Your task to perform on an android device: turn off location history Image 0: 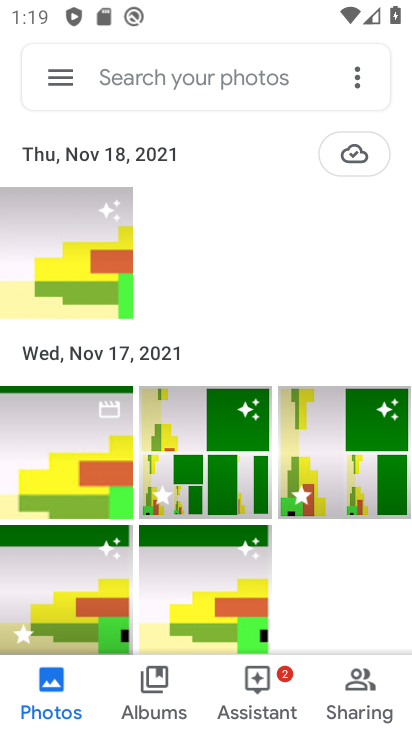
Step 0: press home button
Your task to perform on an android device: turn off location history Image 1: 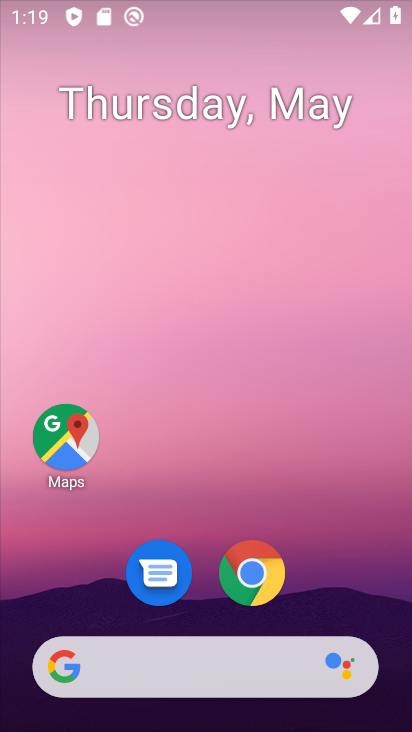
Step 1: drag from (313, 551) to (345, 79)
Your task to perform on an android device: turn off location history Image 2: 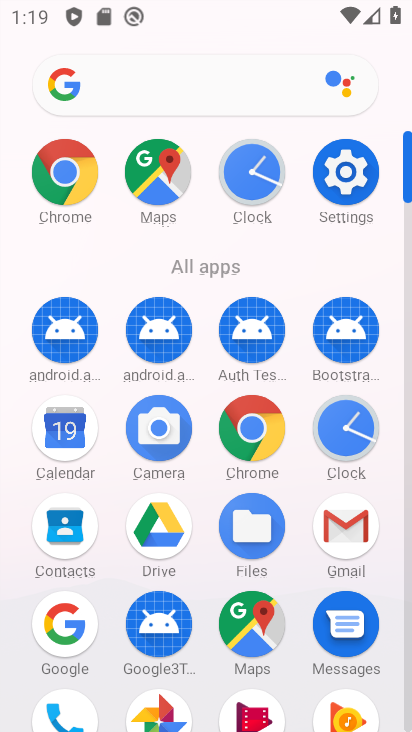
Step 2: click (162, 177)
Your task to perform on an android device: turn off location history Image 3: 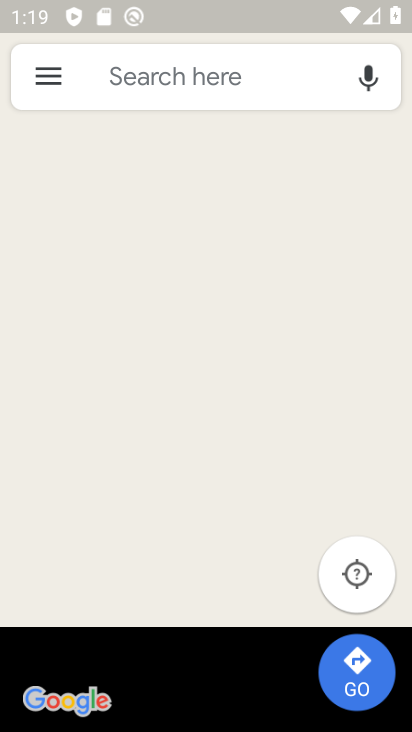
Step 3: click (50, 72)
Your task to perform on an android device: turn off location history Image 4: 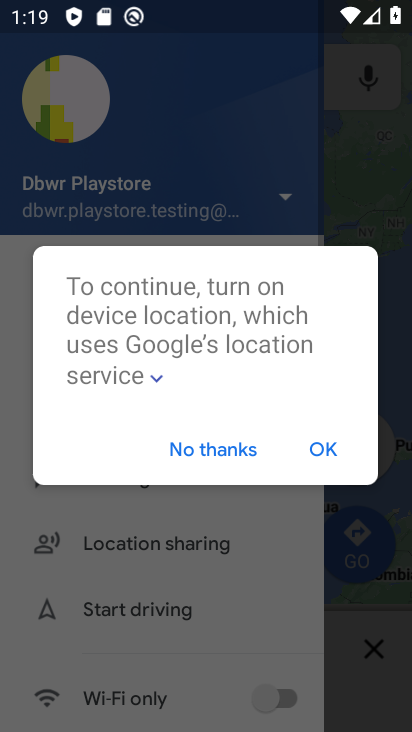
Step 4: click (315, 456)
Your task to perform on an android device: turn off location history Image 5: 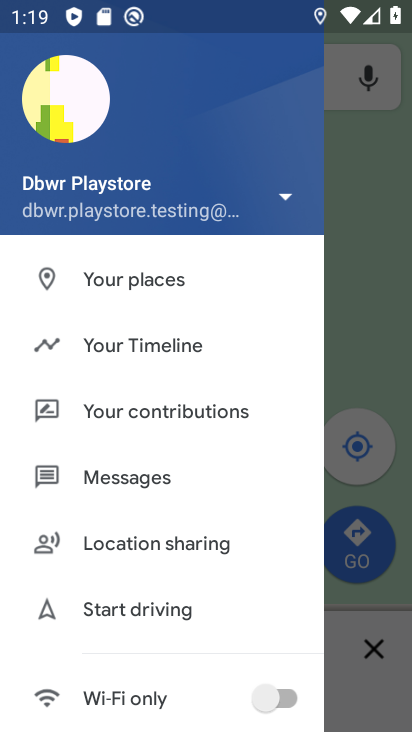
Step 5: click (157, 337)
Your task to perform on an android device: turn off location history Image 6: 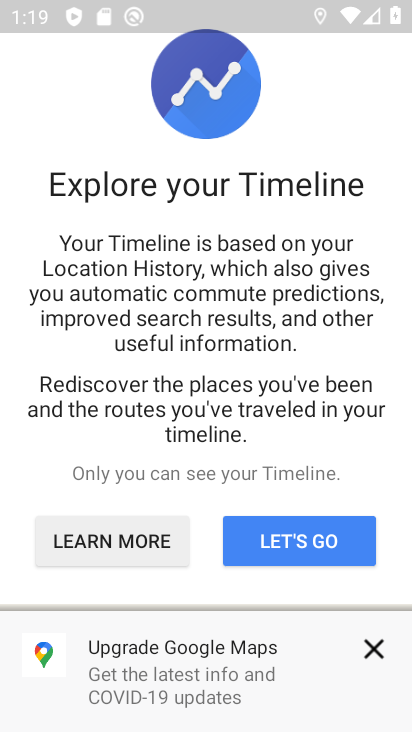
Step 6: click (333, 545)
Your task to perform on an android device: turn off location history Image 7: 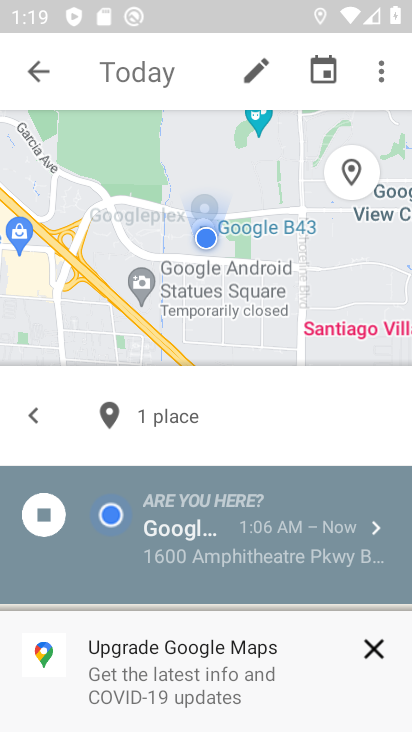
Step 7: click (378, 75)
Your task to perform on an android device: turn off location history Image 8: 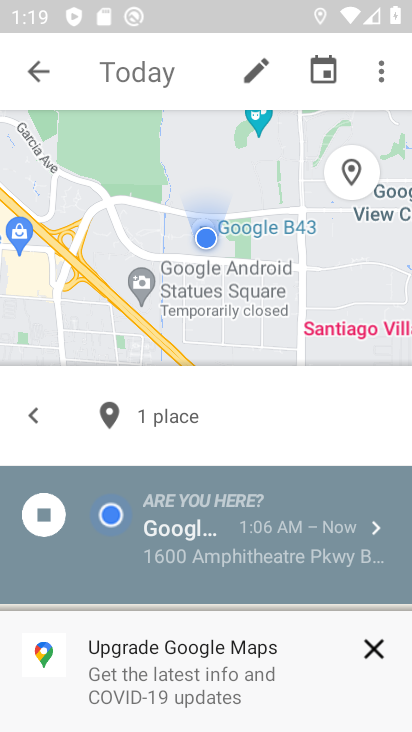
Step 8: click (378, 75)
Your task to perform on an android device: turn off location history Image 9: 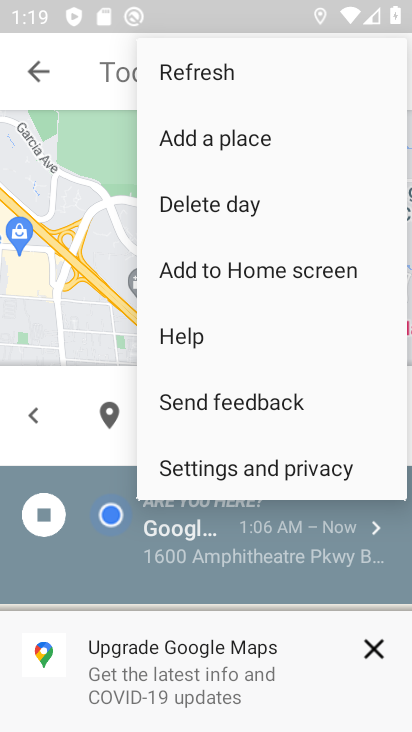
Step 9: click (205, 462)
Your task to perform on an android device: turn off location history Image 10: 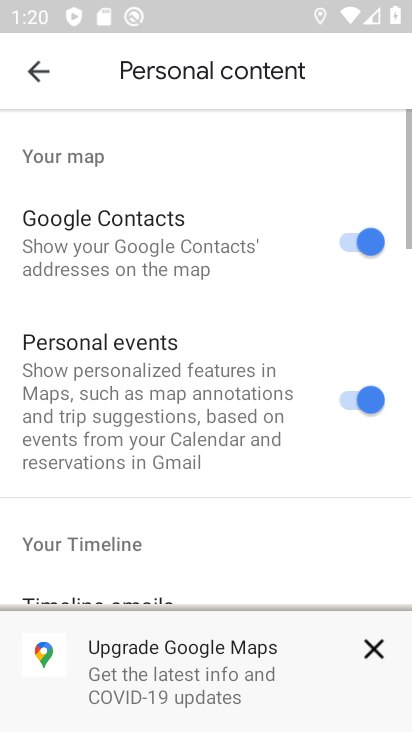
Step 10: drag from (253, 569) to (328, 126)
Your task to perform on an android device: turn off location history Image 11: 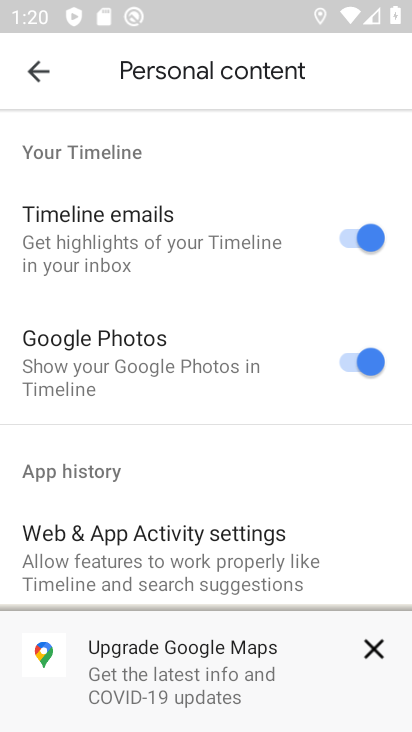
Step 11: drag from (235, 575) to (311, 152)
Your task to perform on an android device: turn off location history Image 12: 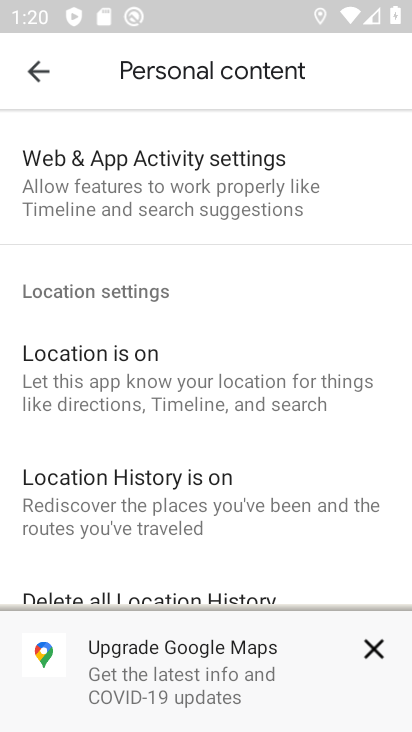
Step 12: click (174, 496)
Your task to perform on an android device: turn off location history Image 13: 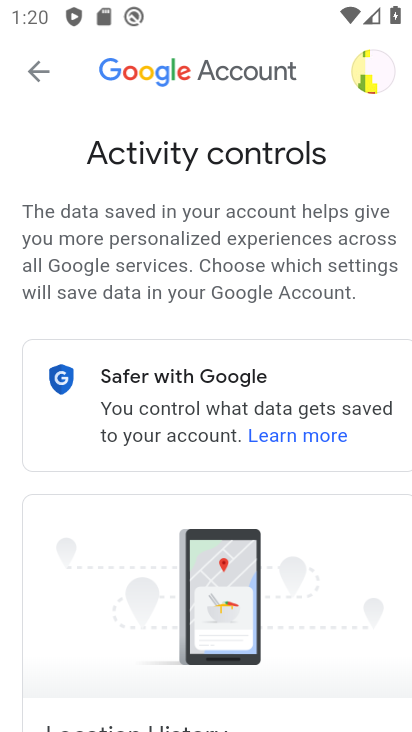
Step 13: drag from (174, 496) to (237, 120)
Your task to perform on an android device: turn off location history Image 14: 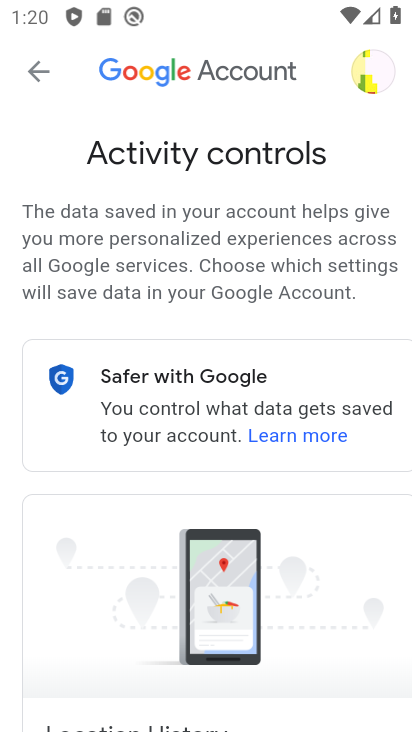
Step 14: drag from (306, 619) to (378, 232)
Your task to perform on an android device: turn off location history Image 15: 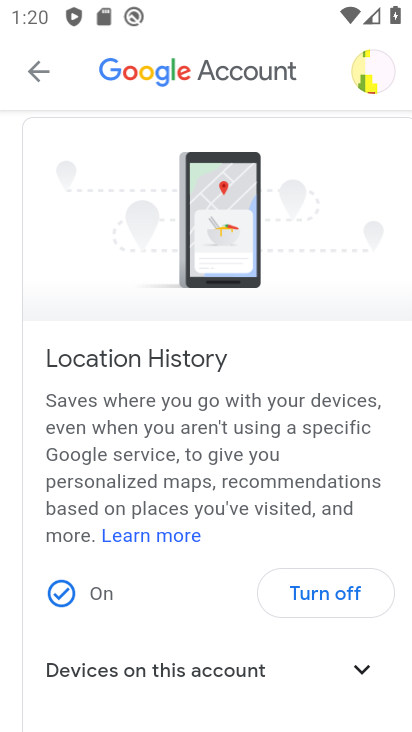
Step 15: click (344, 587)
Your task to perform on an android device: turn off location history Image 16: 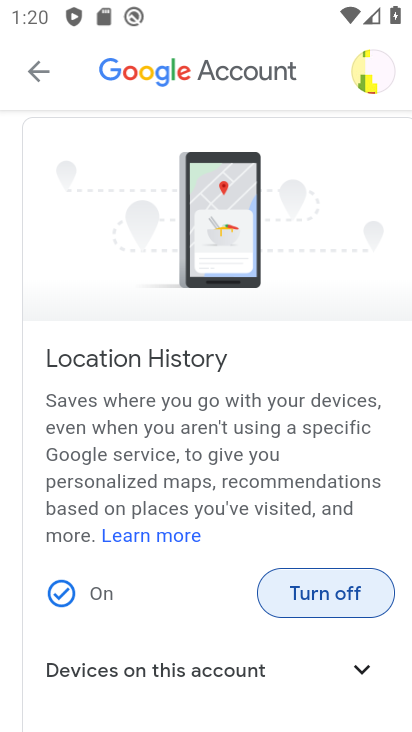
Step 16: click (344, 587)
Your task to perform on an android device: turn off location history Image 17: 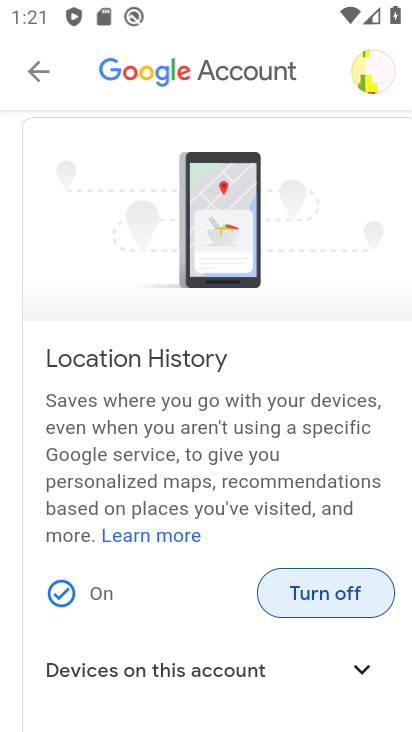
Step 17: click (358, 601)
Your task to perform on an android device: turn off location history Image 18: 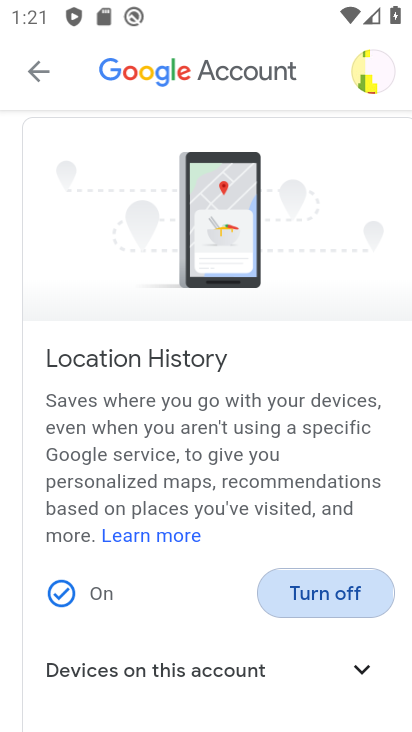
Step 18: click (358, 601)
Your task to perform on an android device: turn off location history Image 19: 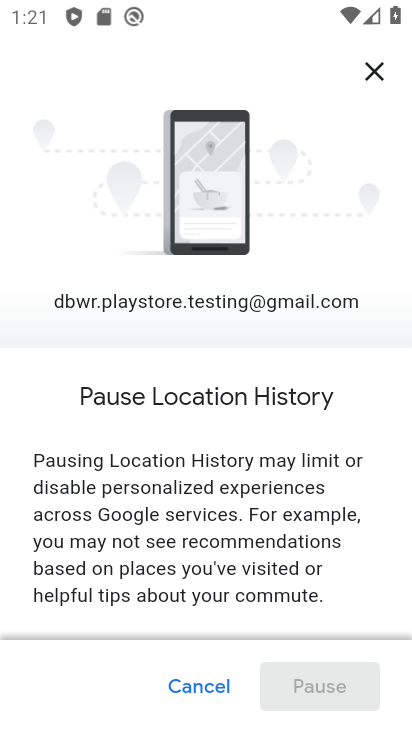
Step 19: drag from (356, 627) to (375, 99)
Your task to perform on an android device: turn off location history Image 20: 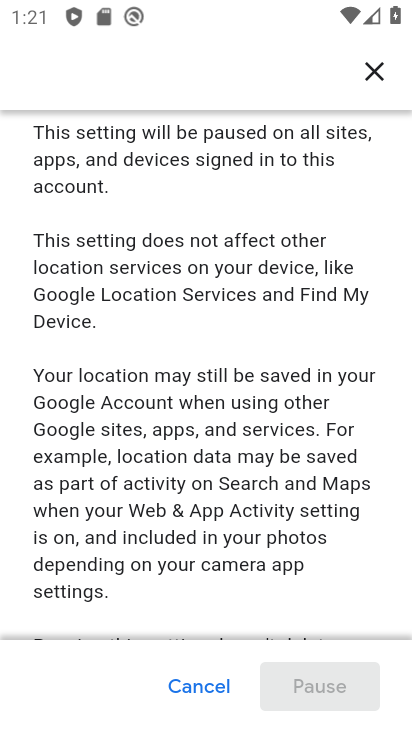
Step 20: drag from (261, 551) to (270, 0)
Your task to perform on an android device: turn off location history Image 21: 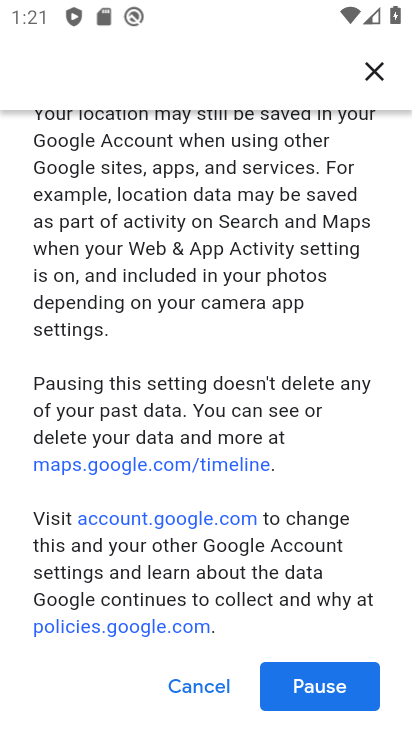
Step 21: drag from (223, 520) to (217, 242)
Your task to perform on an android device: turn off location history Image 22: 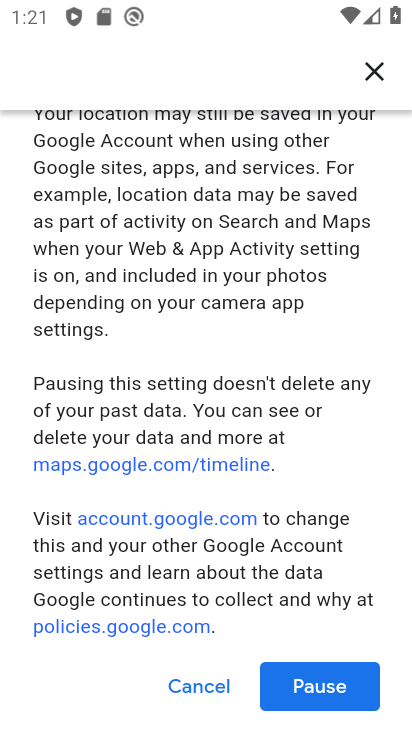
Step 22: click (319, 680)
Your task to perform on an android device: turn off location history Image 23: 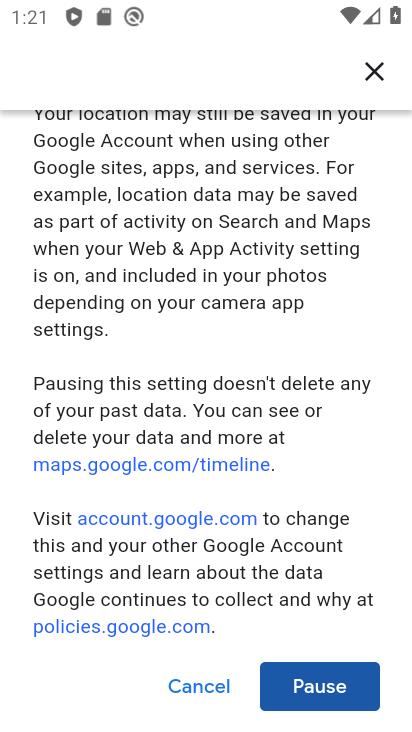
Step 23: click (319, 680)
Your task to perform on an android device: turn off location history Image 24: 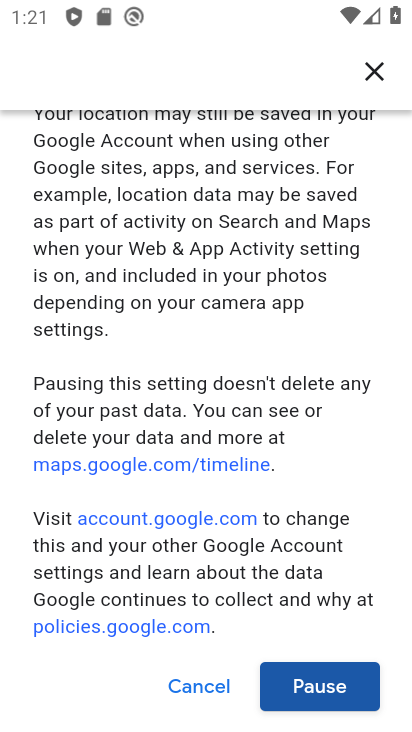
Step 24: click (319, 680)
Your task to perform on an android device: turn off location history Image 25: 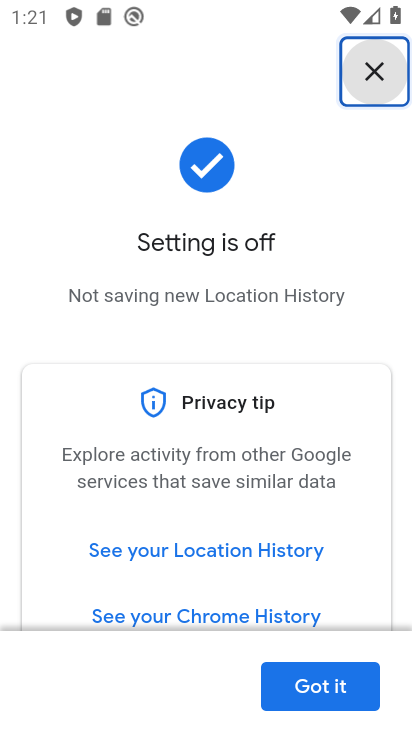
Step 25: click (345, 693)
Your task to perform on an android device: turn off location history Image 26: 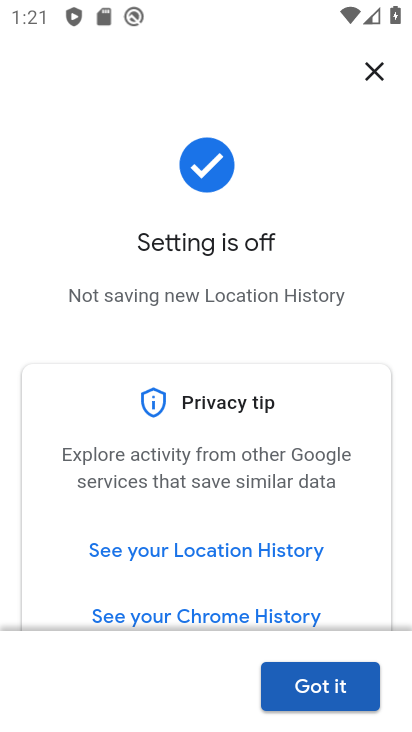
Step 26: task complete